Your task to perform on an android device: turn on improve location accuracy Image 0: 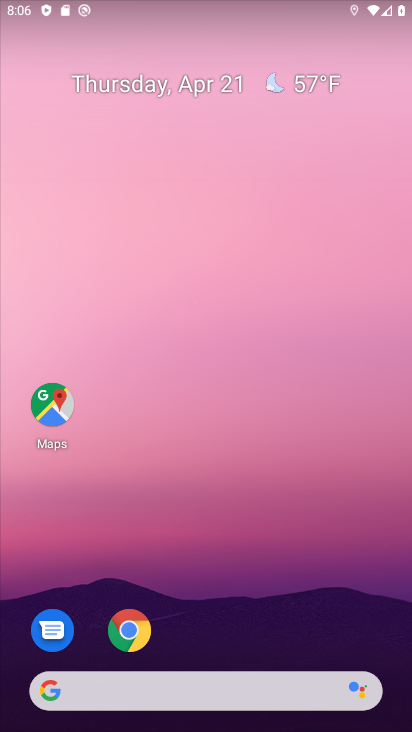
Step 0: drag from (309, 624) to (290, 347)
Your task to perform on an android device: turn on improve location accuracy Image 1: 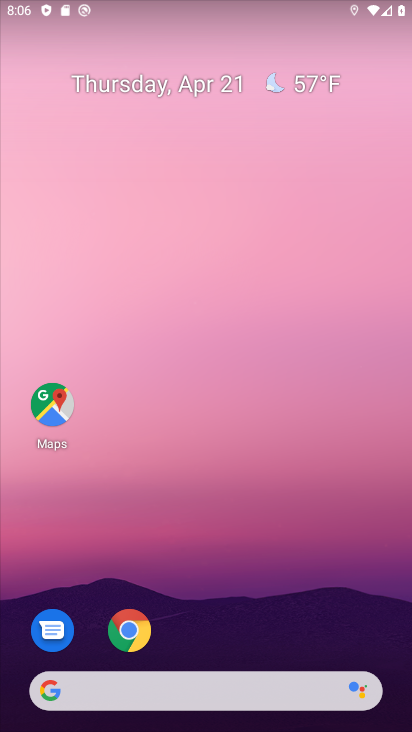
Step 1: drag from (278, 619) to (297, 118)
Your task to perform on an android device: turn on improve location accuracy Image 2: 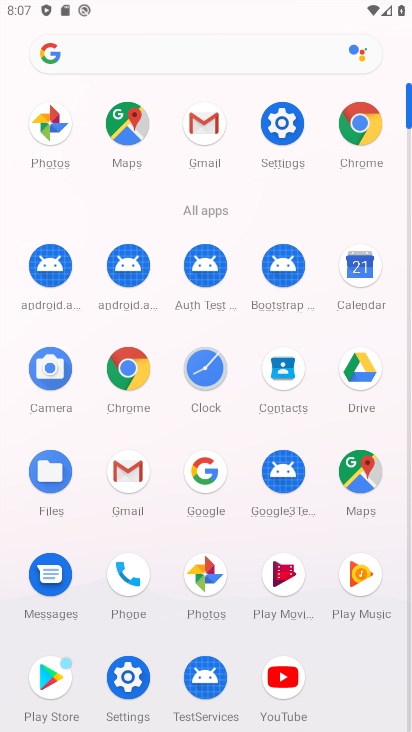
Step 2: click (269, 117)
Your task to perform on an android device: turn on improve location accuracy Image 3: 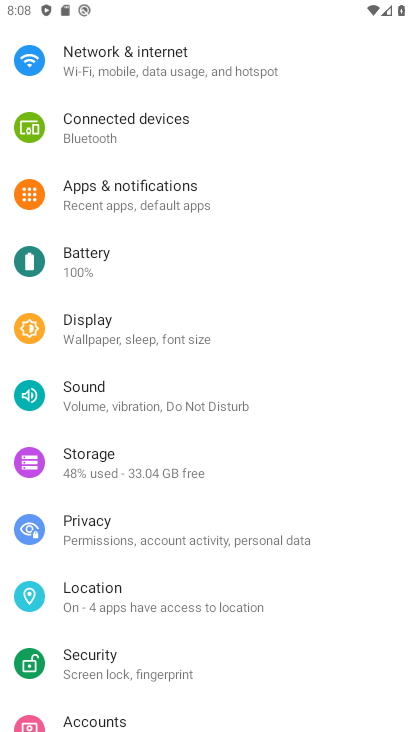
Step 3: click (107, 606)
Your task to perform on an android device: turn on improve location accuracy Image 4: 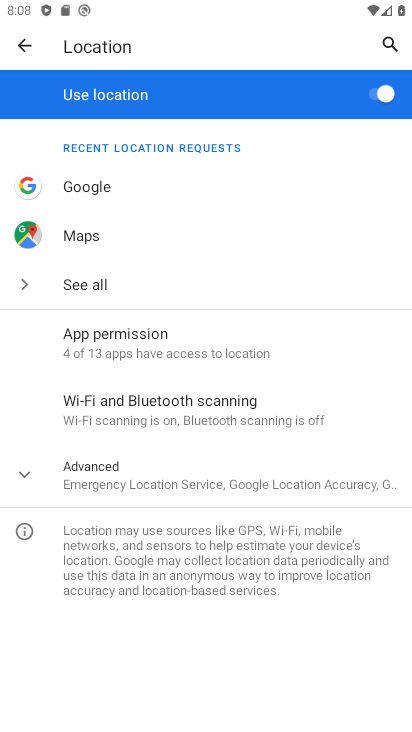
Step 4: click (172, 471)
Your task to perform on an android device: turn on improve location accuracy Image 5: 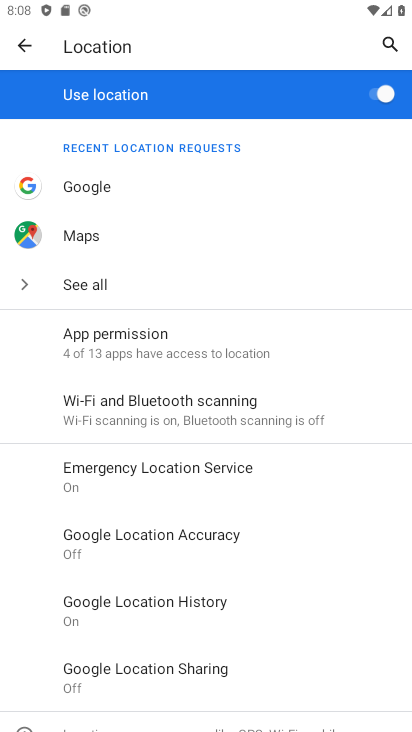
Step 5: click (189, 529)
Your task to perform on an android device: turn on improve location accuracy Image 6: 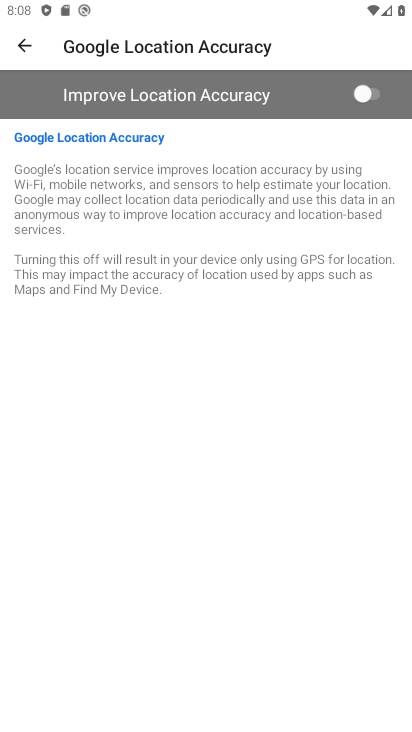
Step 6: click (357, 86)
Your task to perform on an android device: turn on improve location accuracy Image 7: 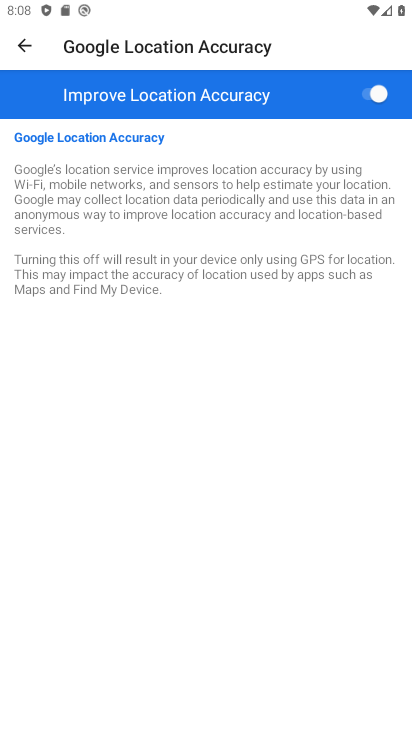
Step 7: task complete